Your task to perform on an android device: What's the news in Barbados? Image 0: 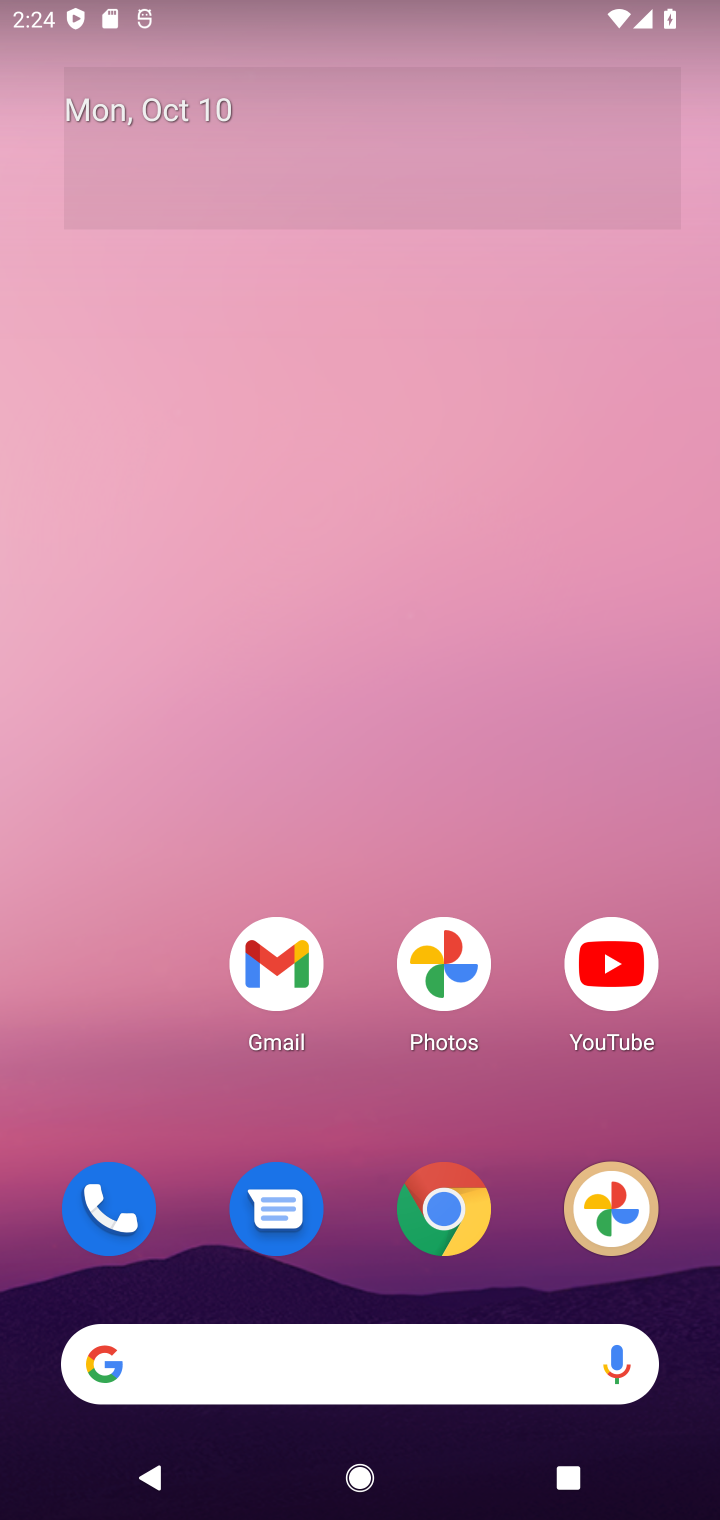
Step 0: click (453, 1190)
Your task to perform on an android device: What's the news in Barbados? Image 1: 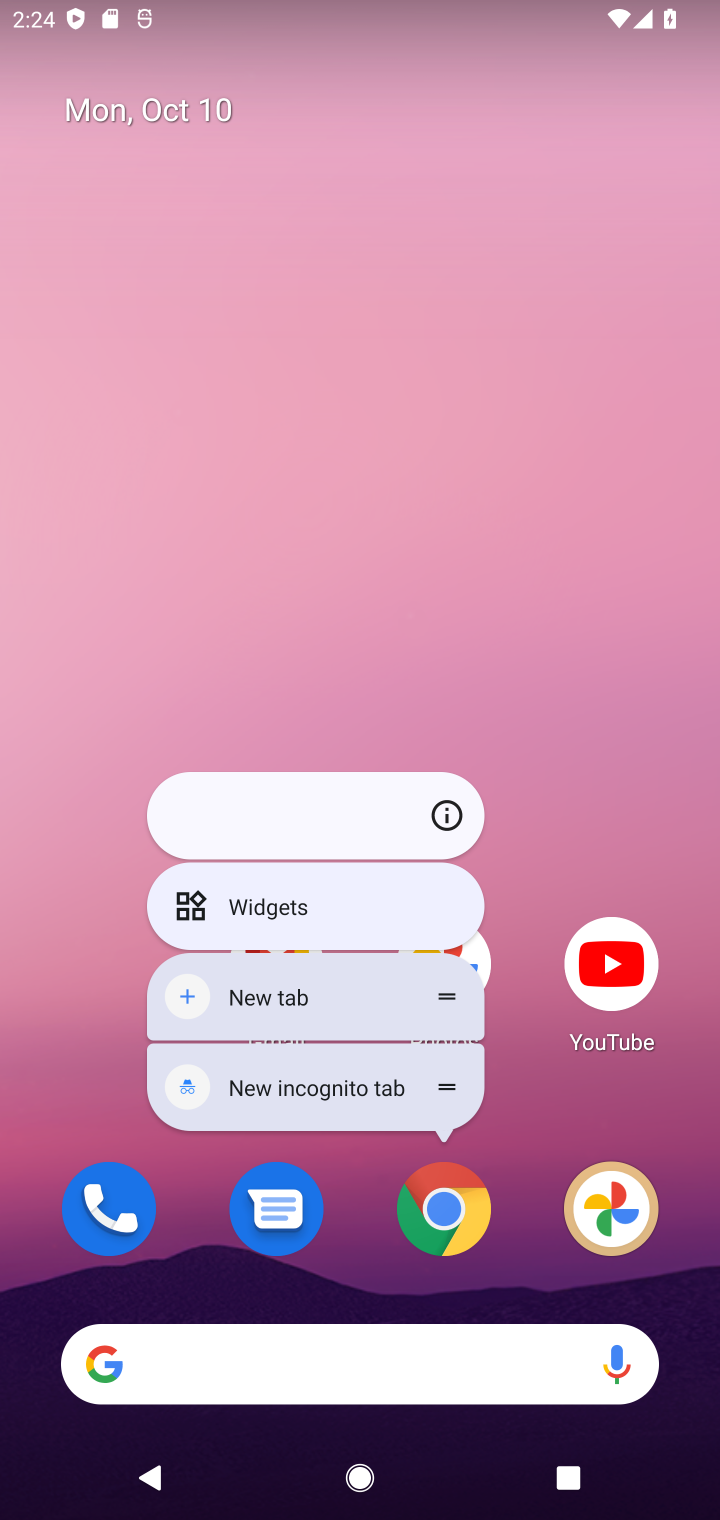
Step 1: click (471, 1197)
Your task to perform on an android device: What's the news in Barbados? Image 2: 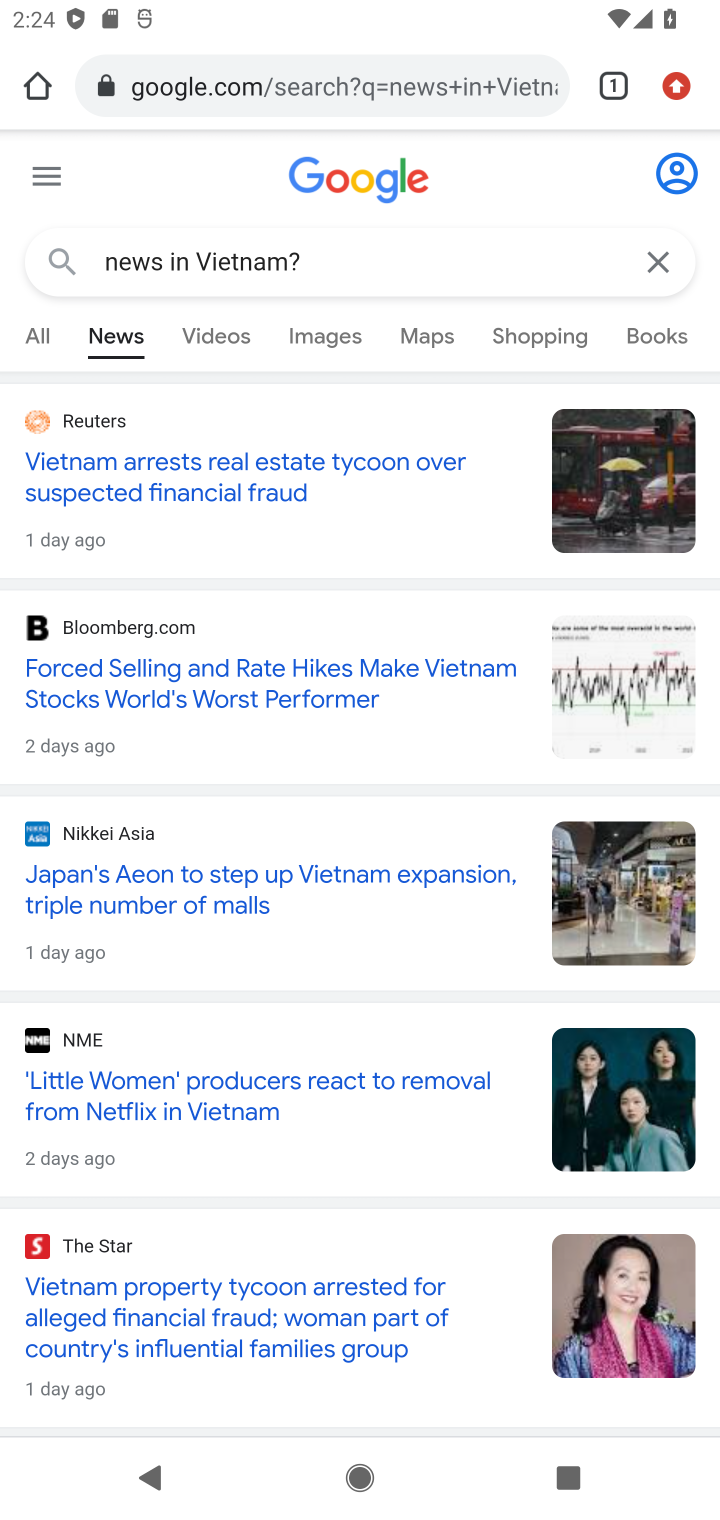
Step 2: click (665, 268)
Your task to perform on an android device: What's the news in Barbados? Image 3: 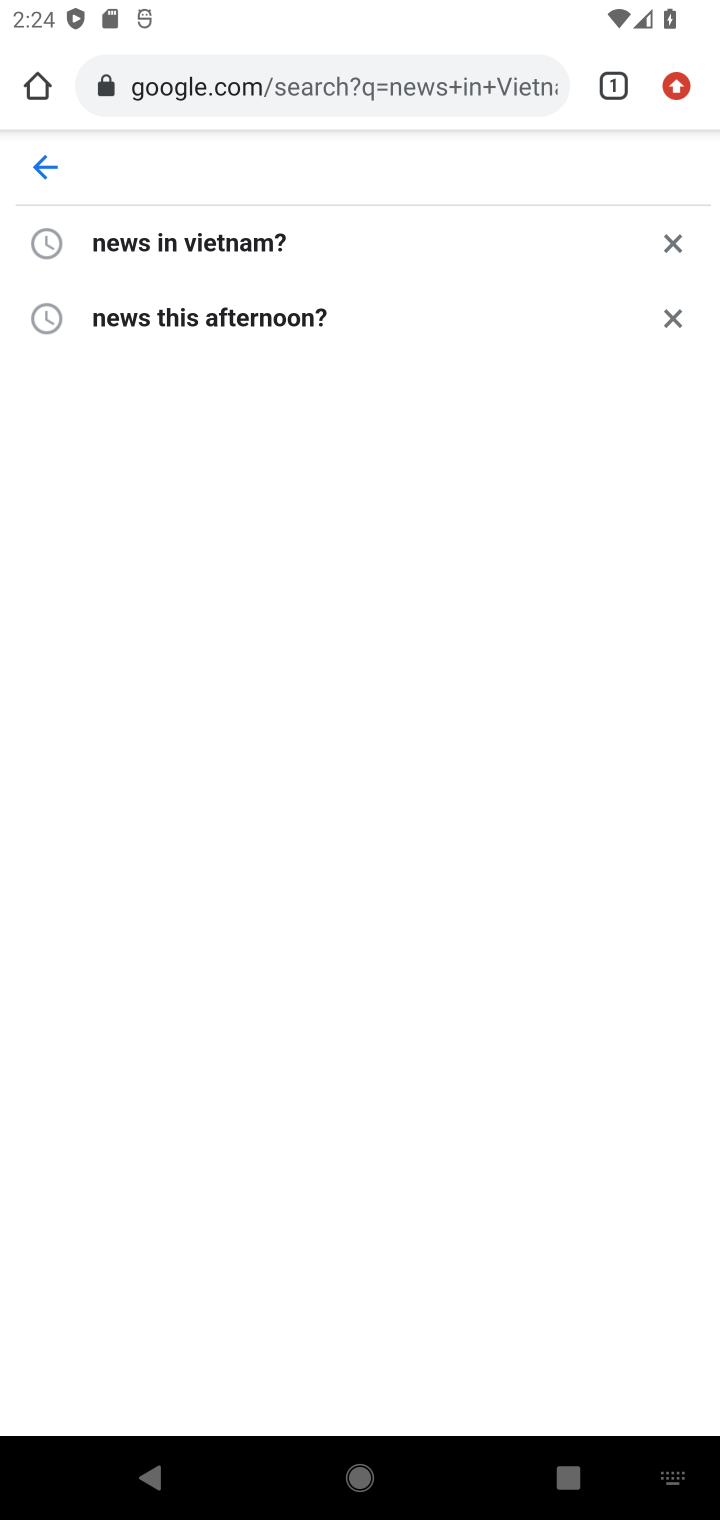
Step 3: type "news in Barbados?"
Your task to perform on an android device: What's the news in Barbados? Image 4: 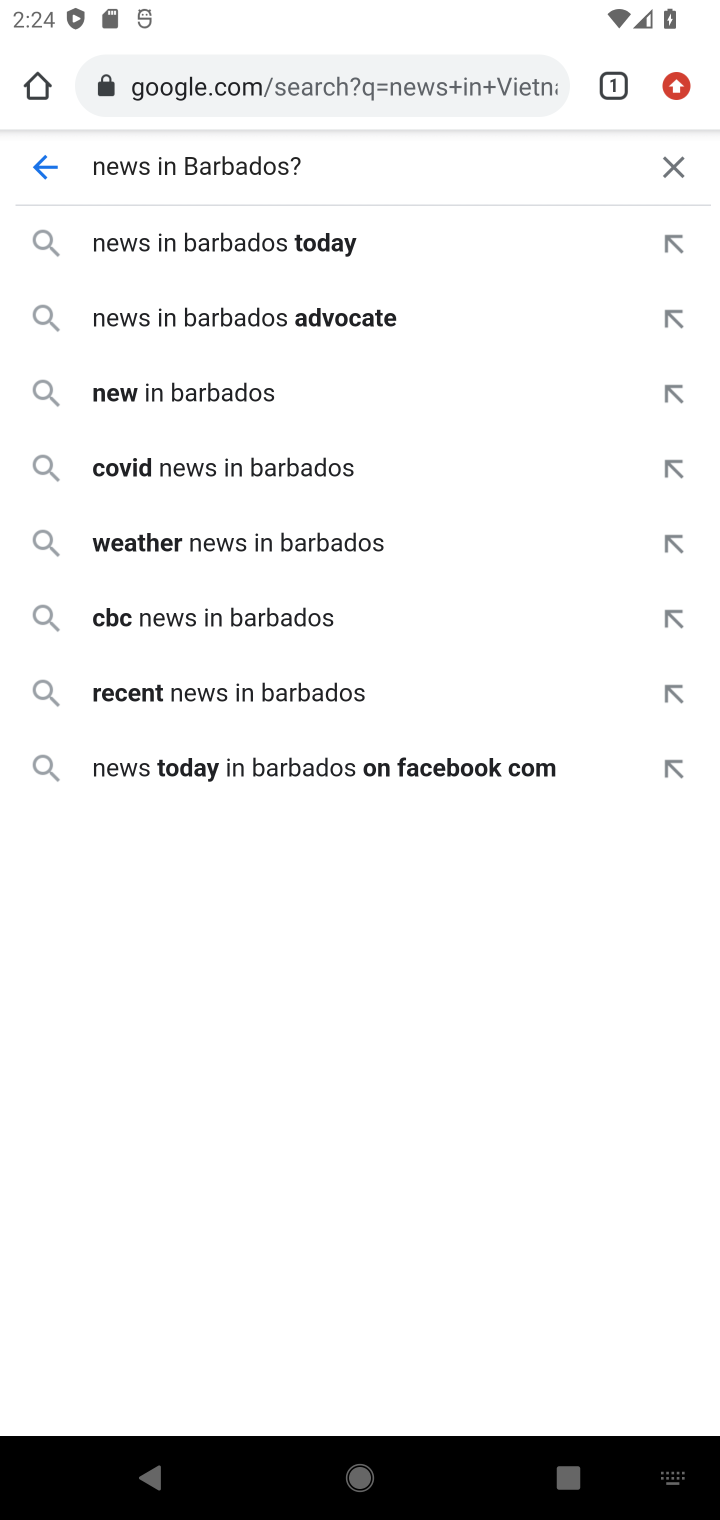
Step 4: press enter
Your task to perform on an android device: What's the news in Barbados? Image 5: 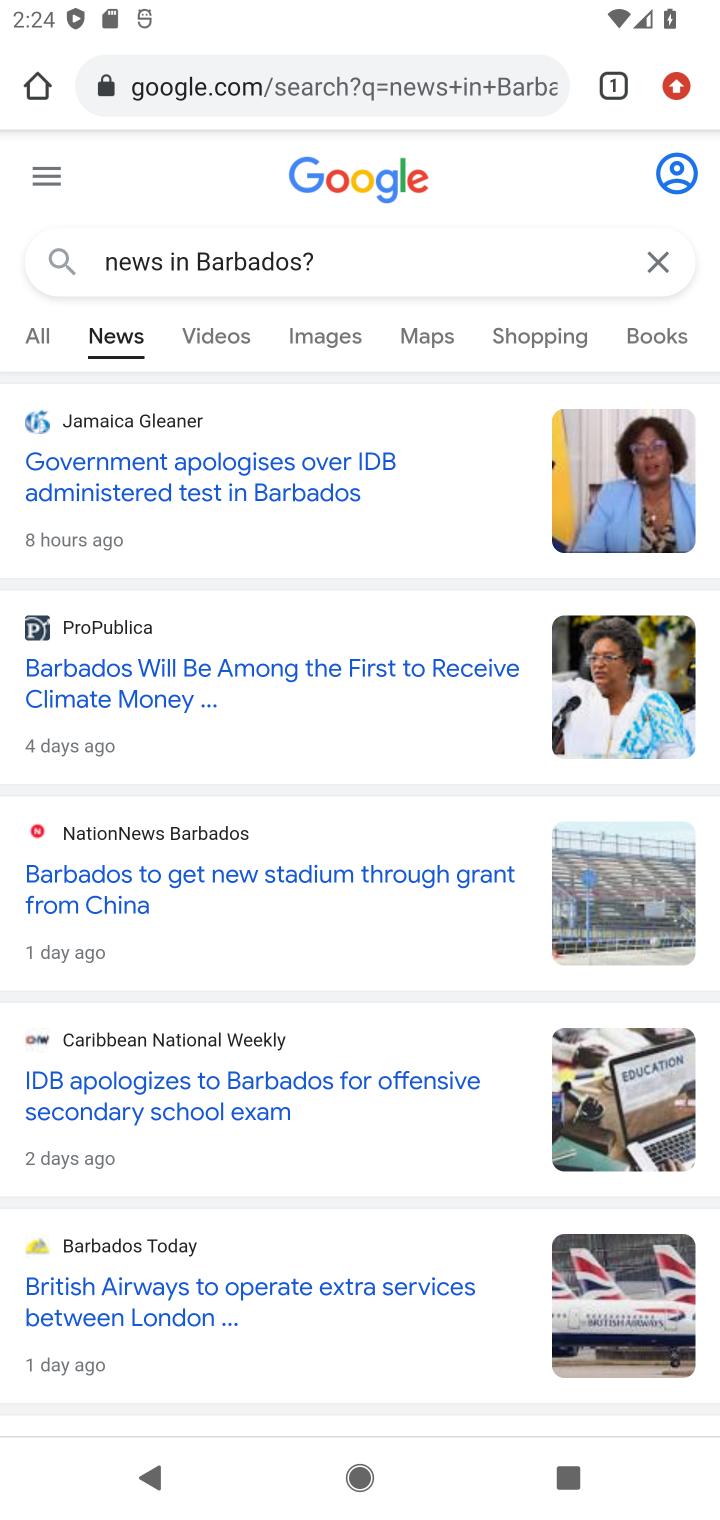
Step 5: task complete